Your task to perform on an android device: Open the calendar app, open the side menu, and click the "Day" option Image 0: 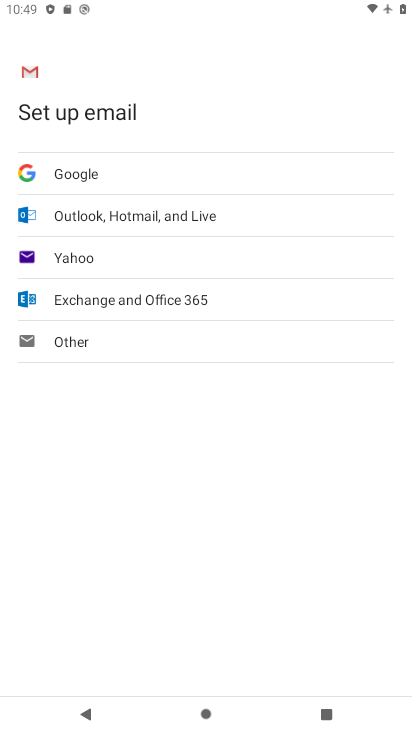
Step 0: press home button
Your task to perform on an android device: Open the calendar app, open the side menu, and click the "Day" option Image 1: 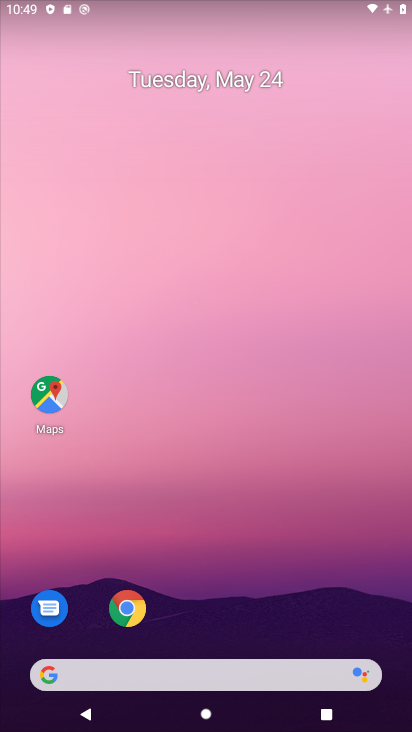
Step 1: drag from (396, 624) to (307, 126)
Your task to perform on an android device: Open the calendar app, open the side menu, and click the "Day" option Image 2: 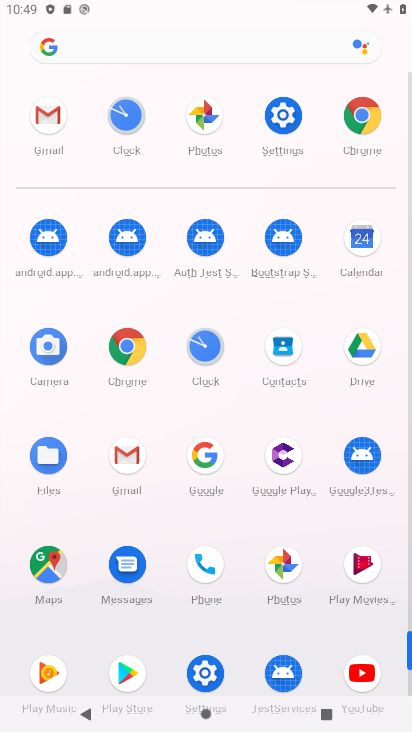
Step 2: click (410, 682)
Your task to perform on an android device: Open the calendar app, open the side menu, and click the "Day" option Image 3: 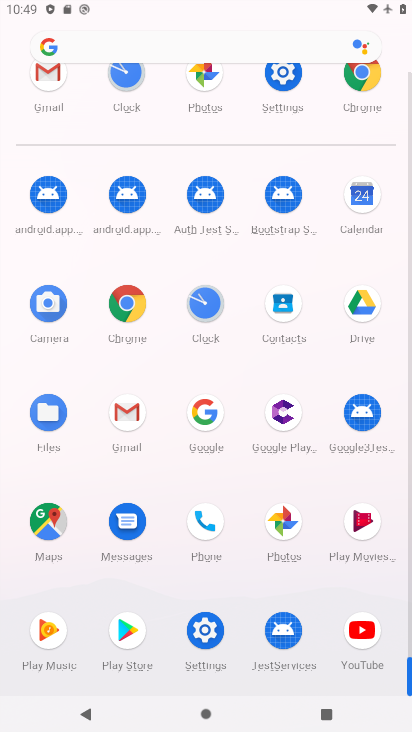
Step 3: click (359, 191)
Your task to perform on an android device: Open the calendar app, open the side menu, and click the "Day" option Image 4: 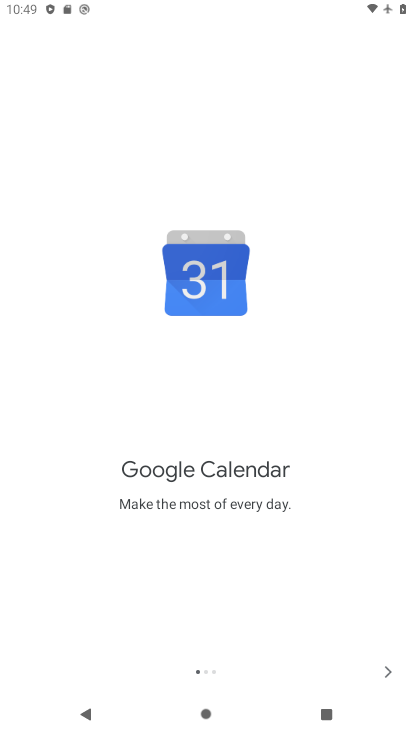
Step 4: click (386, 668)
Your task to perform on an android device: Open the calendar app, open the side menu, and click the "Day" option Image 5: 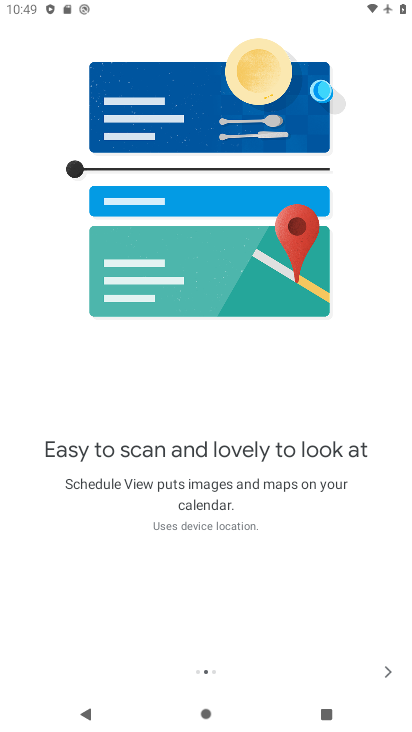
Step 5: click (386, 668)
Your task to perform on an android device: Open the calendar app, open the side menu, and click the "Day" option Image 6: 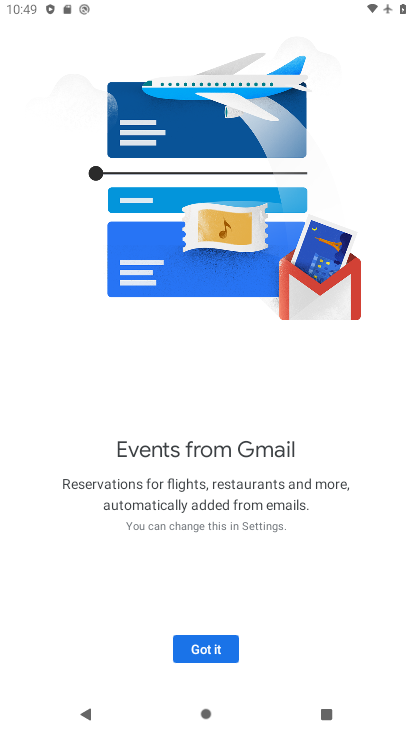
Step 6: click (202, 645)
Your task to perform on an android device: Open the calendar app, open the side menu, and click the "Day" option Image 7: 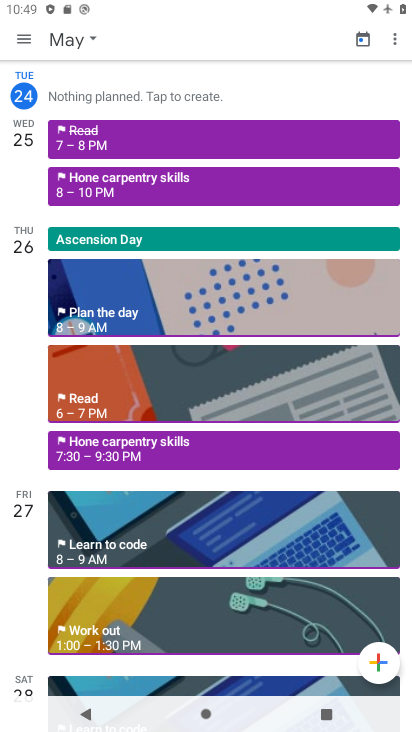
Step 7: click (24, 35)
Your task to perform on an android device: Open the calendar app, open the side menu, and click the "Day" option Image 8: 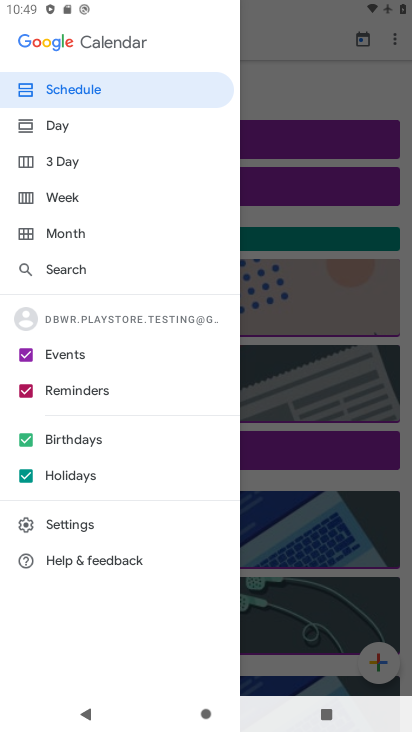
Step 8: click (50, 121)
Your task to perform on an android device: Open the calendar app, open the side menu, and click the "Day" option Image 9: 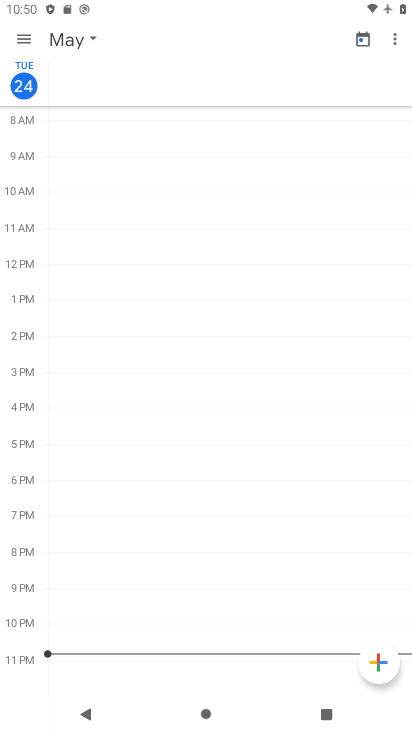
Step 9: task complete